Your task to perform on an android device: turn off notifications in google photos Image 0: 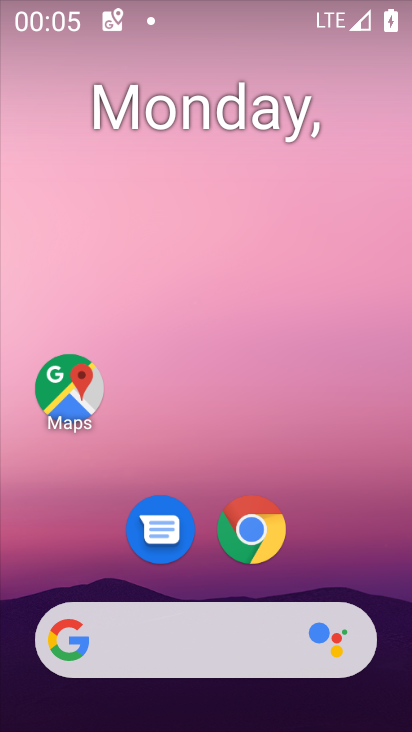
Step 0: drag from (338, 551) to (284, 89)
Your task to perform on an android device: turn off notifications in google photos Image 1: 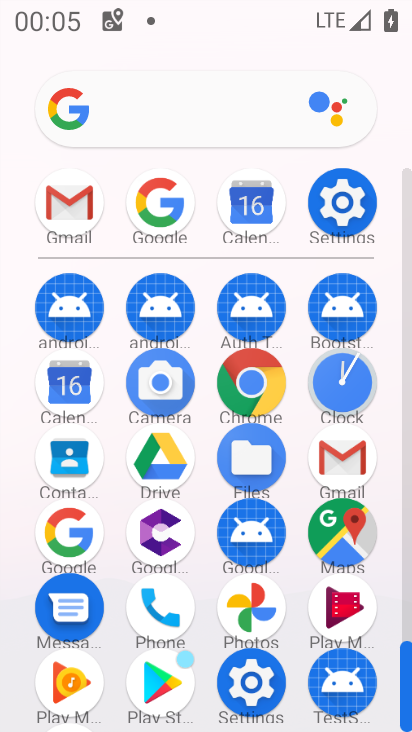
Step 1: drag from (285, 508) to (297, 340)
Your task to perform on an android device: turn off notifications in google photos Image 2: 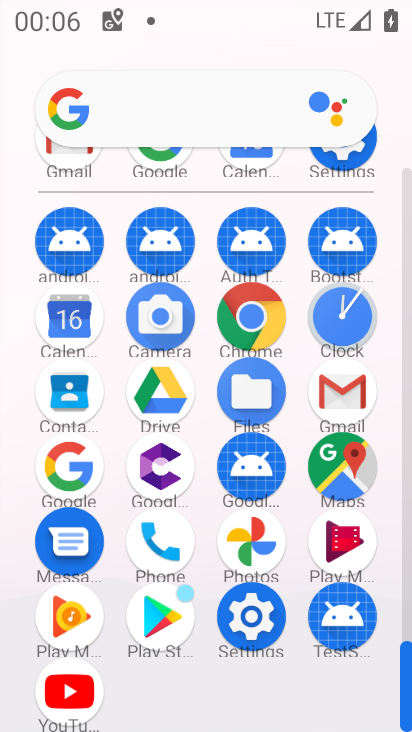
Step 2: click (254, 544)
Your task to perform on an android device: turn off notifications in google photos Image 3: 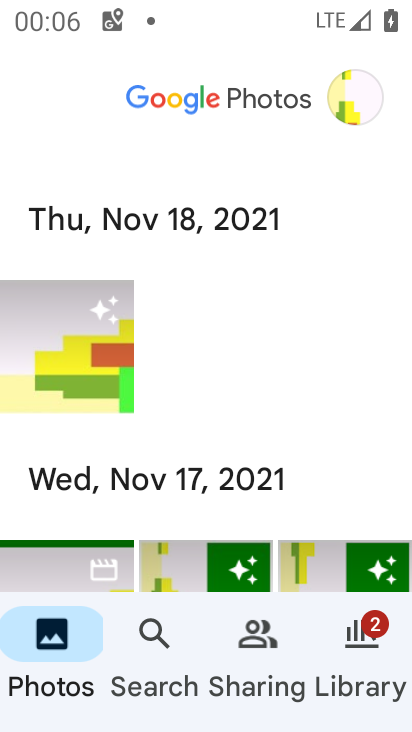
Step 3: click (362, 104)
Your task to perform on an android device: turn off notifications in google photos Image 4: 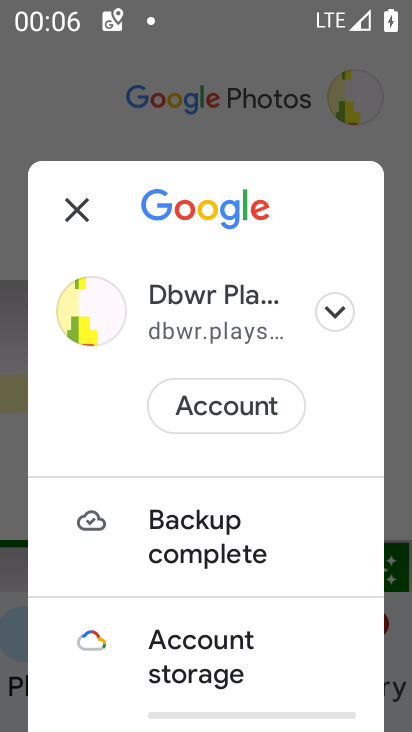
Step 4: drag from (186, 620) to (253, 360)
Your task to perform on an android device: turn off notifications in google photos Image 5: 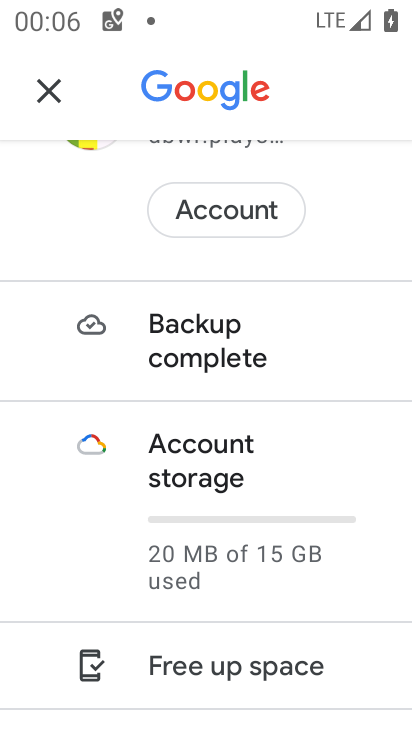
Step 5: drag from (227, 629) to (324, 464)
Your task to perform on an android device: turn off notifications in google photos Image 6: 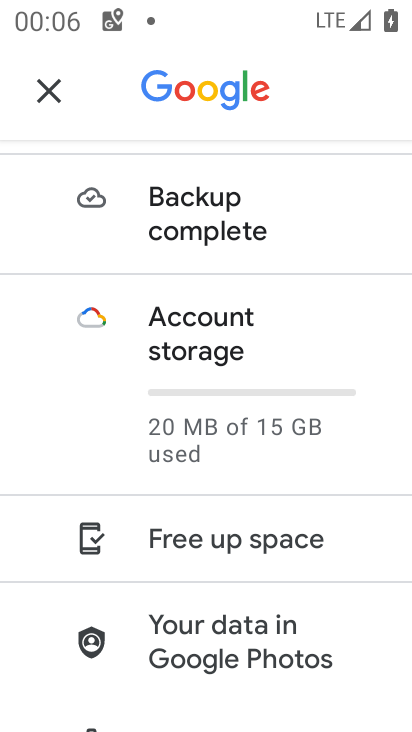
Step 6: drag from (202, 603) to (262, 397)
Your task to perform on an android device: turn off notifications in google photos Image 7: 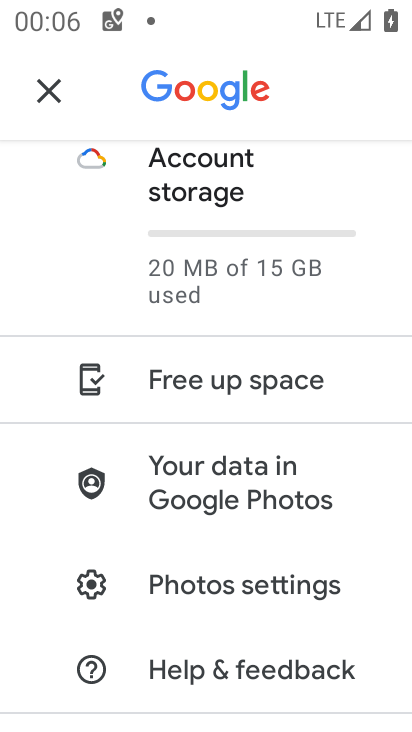
Step 7: drag from (234, 541) to (283, 457)
Your task to perform on an android device: turn off notifications in google photos Image 8: 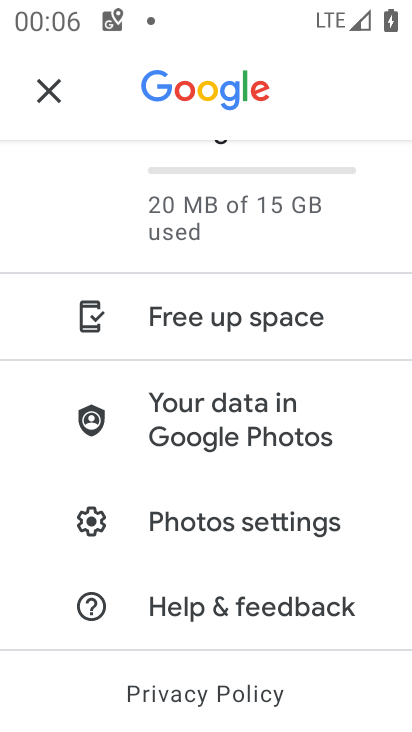
Step 8: click (247, 532)
Your task to perform on an android device: turn off notifications in google photos Image 9: 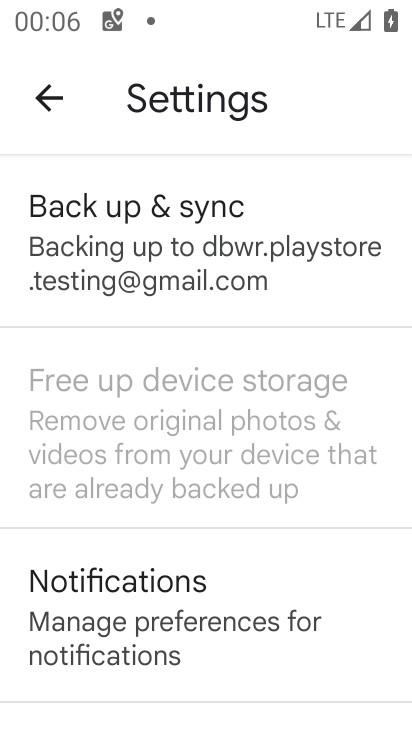
Step 9: click (87, 585)
Your task to perform on an android device: turn off notifications in google photos Image 10: 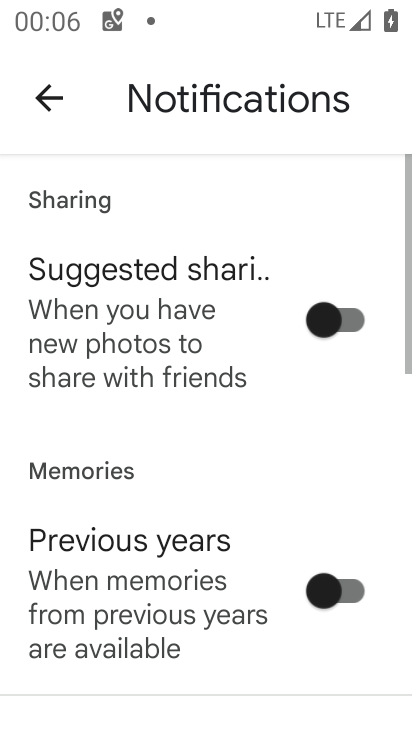
Step 10: drag from (132, 533) to (201, 330)
Your task to perform on an android device: turn off notifications in google photos Image 11: 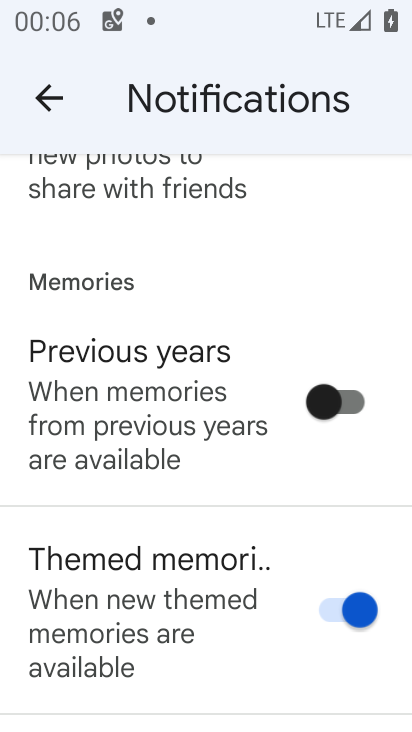
Step 11: drag from (154, 525) to (208, 337)
Your task to perform on an android device: turn off notifications in google photos Image 12: 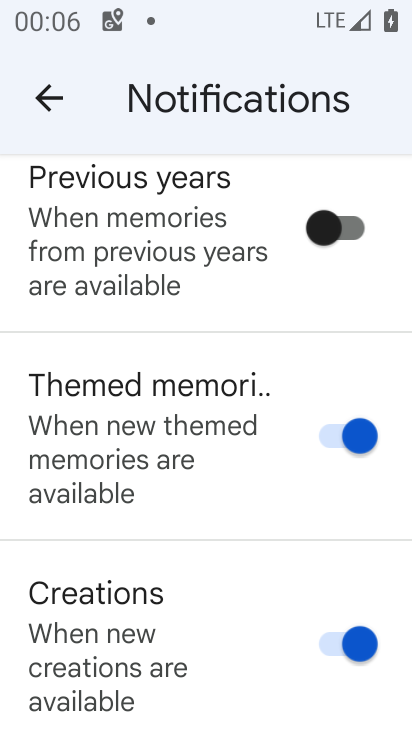
Step 12: drag from (138, 558) to (225, 372)
Your task to perform on an android device: turn off notifications in google photos Image 13: 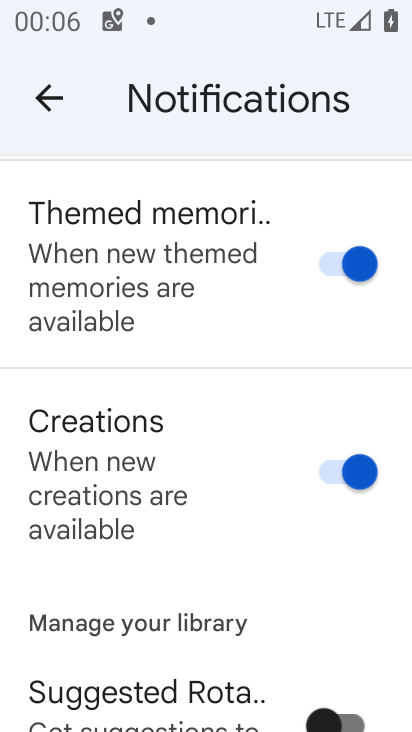
Step 13: drag from (116, 587) to (228, 399)
Your task to perform on an android device: turn off notifications in google photos Image 14: 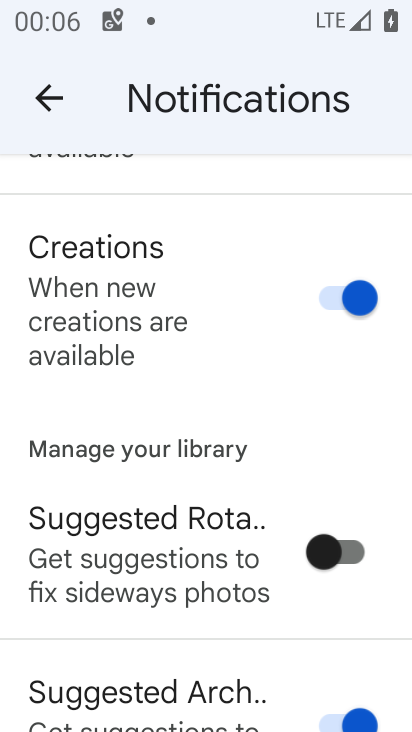
Step 14: drag from (104, 653) to (175, 386)
Your task to perform on an android device: turn off notifications in google photos Image 15: 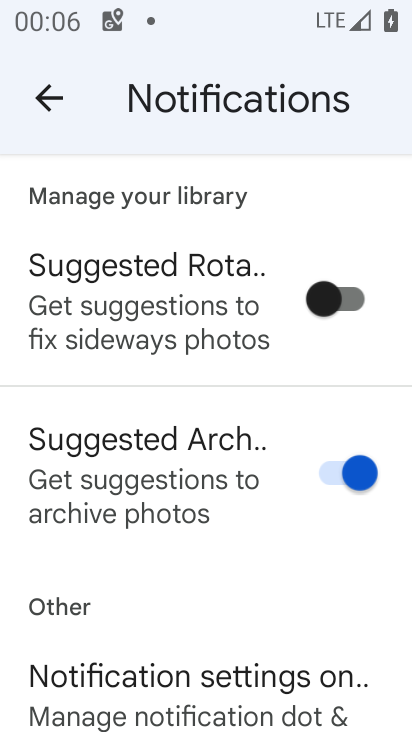
Step 15: drag from (117, 559) to (204, 367)
Your task to perform on an android device: turn off notifications in google photos Image 16: 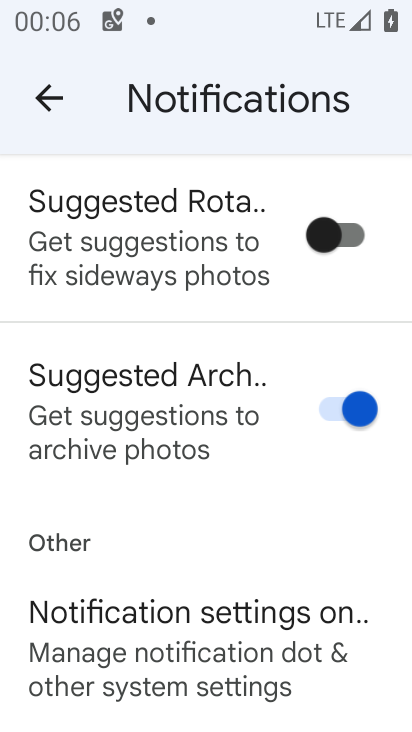
Step 16: click (150, 630)
Your task to perform on an android device: turn off notifications in google photos Image 17: 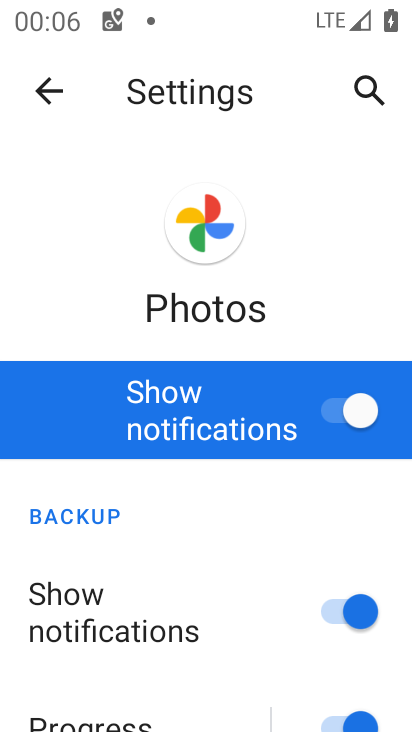
Step 17: click (329, 416)
Your task to perform on an android device: turn off notifications in google photos Image 18: 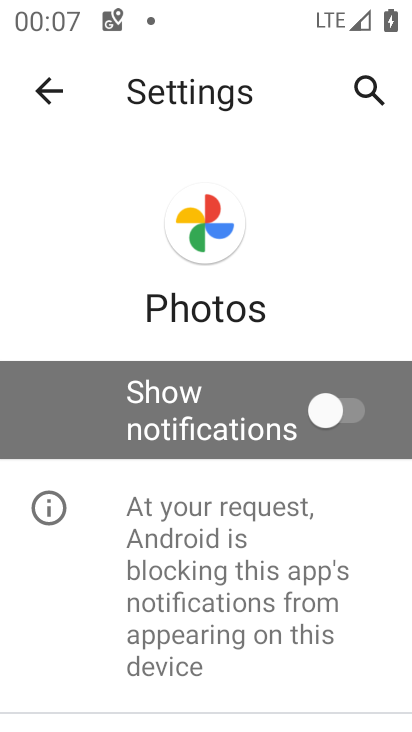
Step 18: task complete